Your task to perform on an android device: change the clock display to show seconds Image 0: 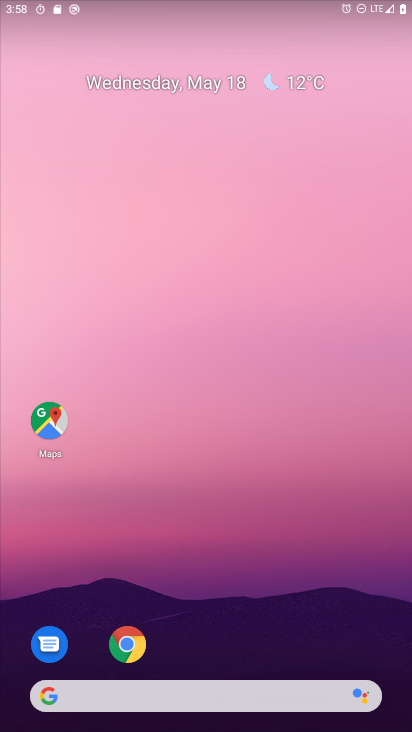
Step 0: drag from (392, 645) to (356, 229)
Your task to perform on an android device: change the clock display to show seconds Image 1: 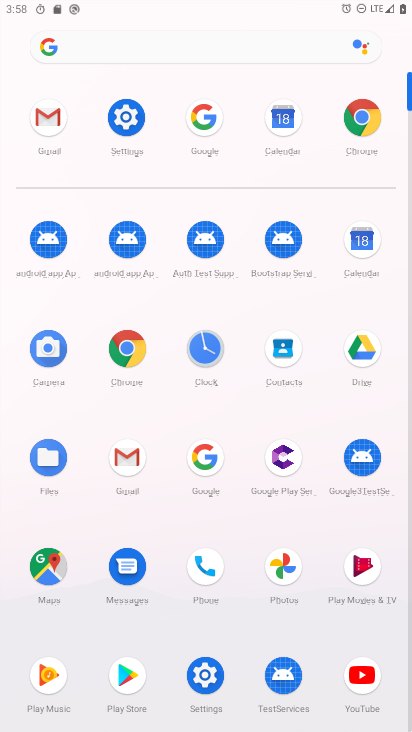
Step 1: click (207, 336)
Your task to perform on an android device: change the clock display to show seconds Image 2: 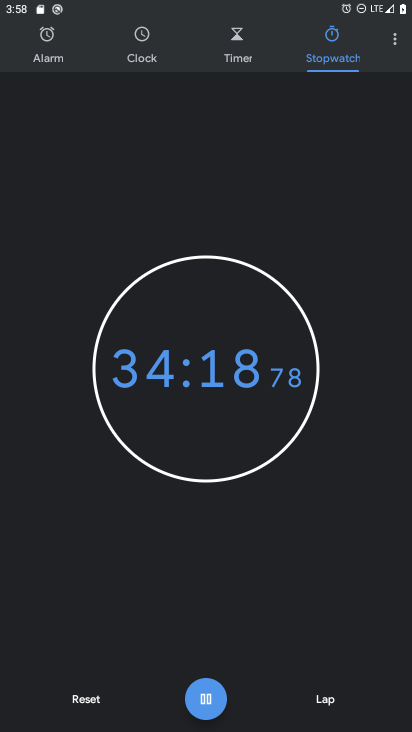
Step 2: click (394, 31)
Your task to perform on an android device: change the clock display to show seconds Image 3: 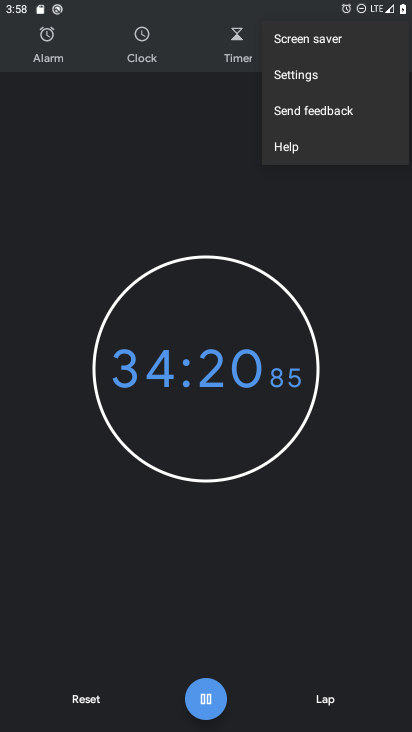
Step 3: click (295, 82)
Your task to perform on an android device: change the clock display to show seconds Image 4: 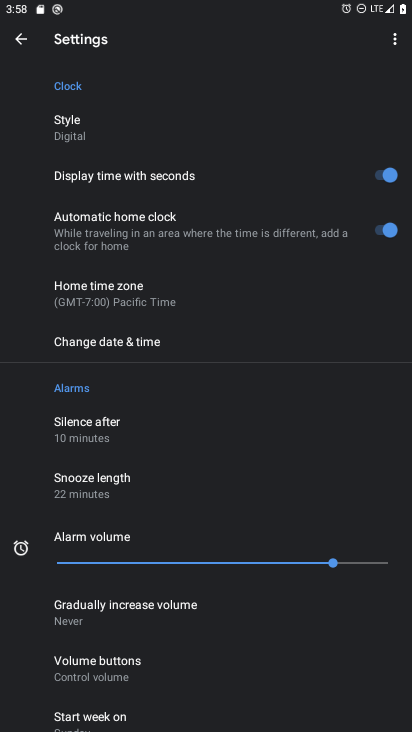
Step 4: task complete